Your task to perform on an android device: Clear the shopping cart on ebay.com. Search for "logitech g pro" on ebay.com, select the first entry, add it to the cart, then select checkout. Image 0: 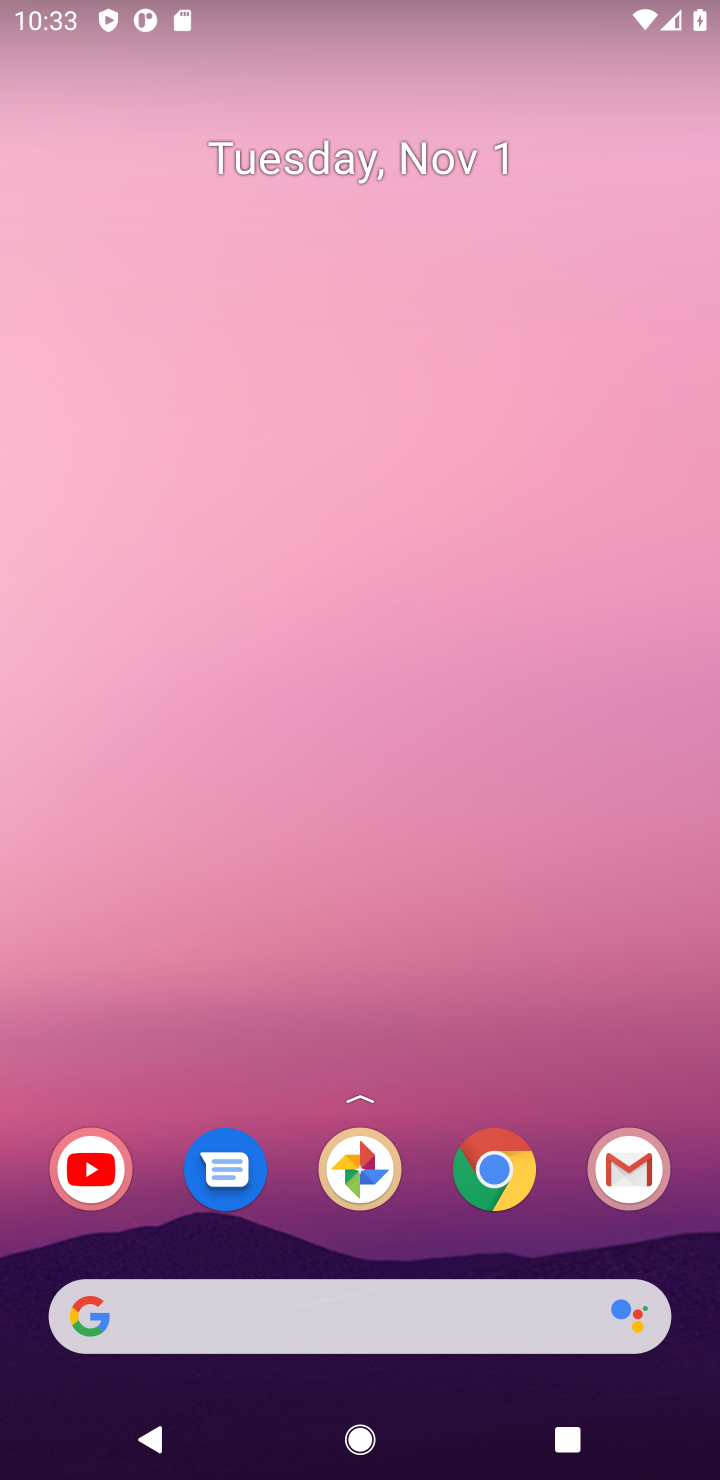
Step 0: click (518, 1165)
Your task to perform on an android device: Clear the shopping cart on ebay.com. Search for "logitech g pro" on ebay.com, select the first entry, add it to the cart, then select checkout. Image 1: 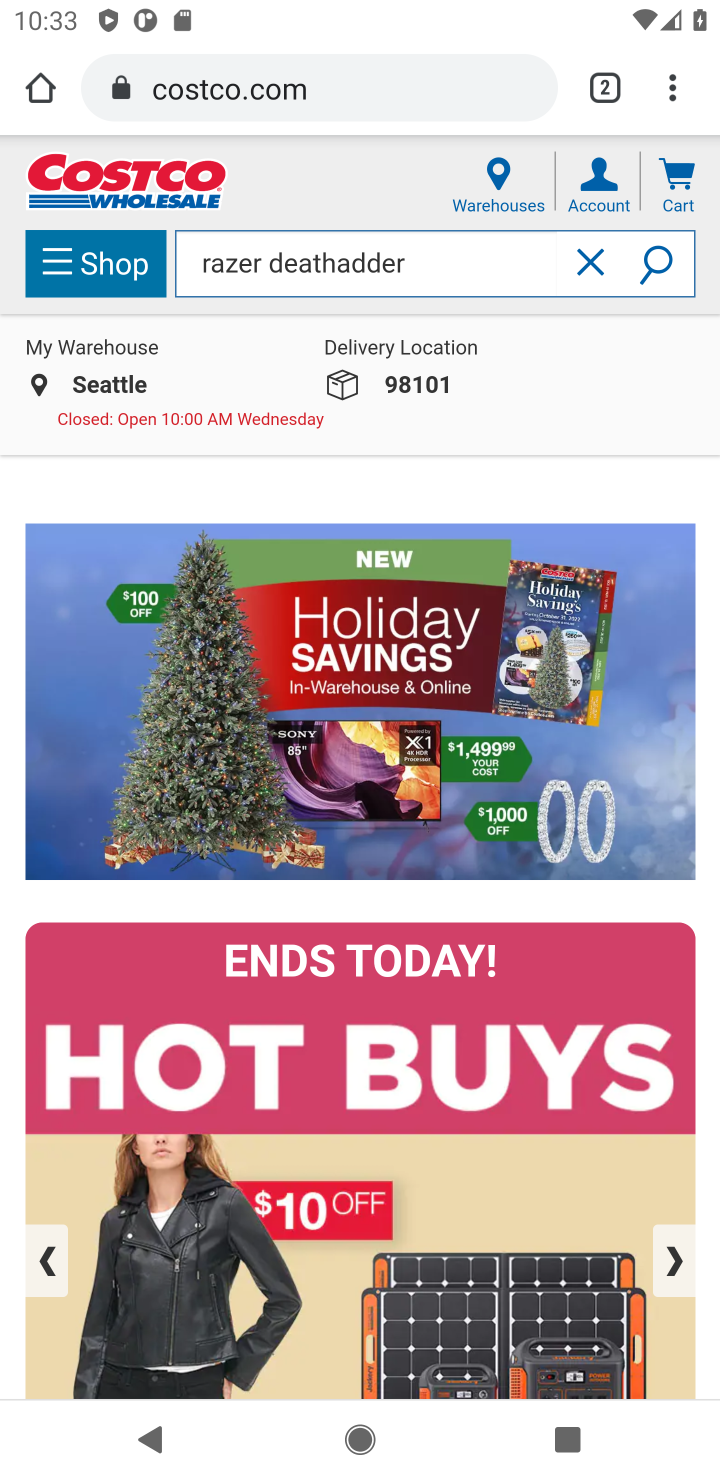
Step 1: click (256, 78)
Your task to perform on an android device: Clear the shopping cart on ebay.com. Search for "logitech g pro" on ebay.com, select the first entry, add it to the cart, then select checkout. Image 2: 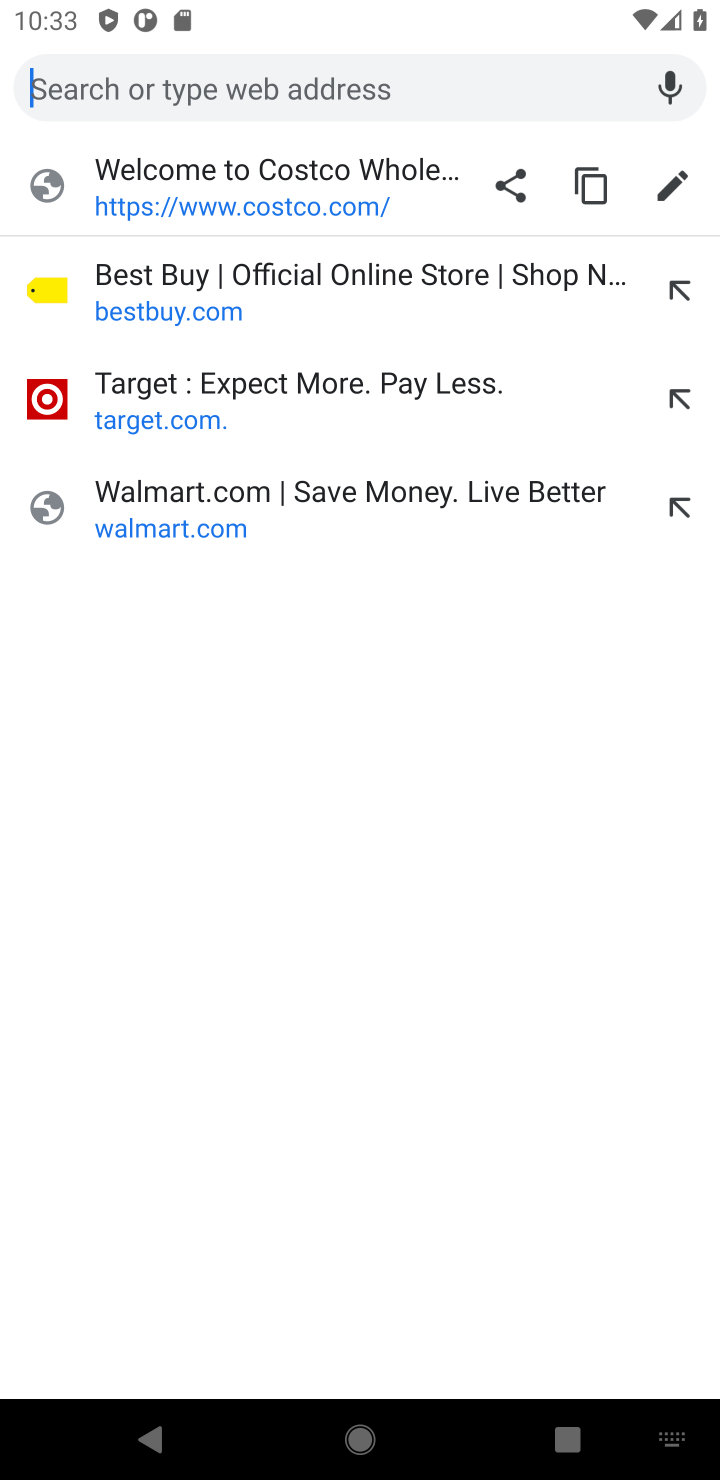
Step 2: type "ebay.com"
Your task to perform on an android device: Clear the shopping cart on ebay.com. Search for "logitech g pro" on ebay.com, select the first entry, add it to the cart, then select checkout. Image 3: 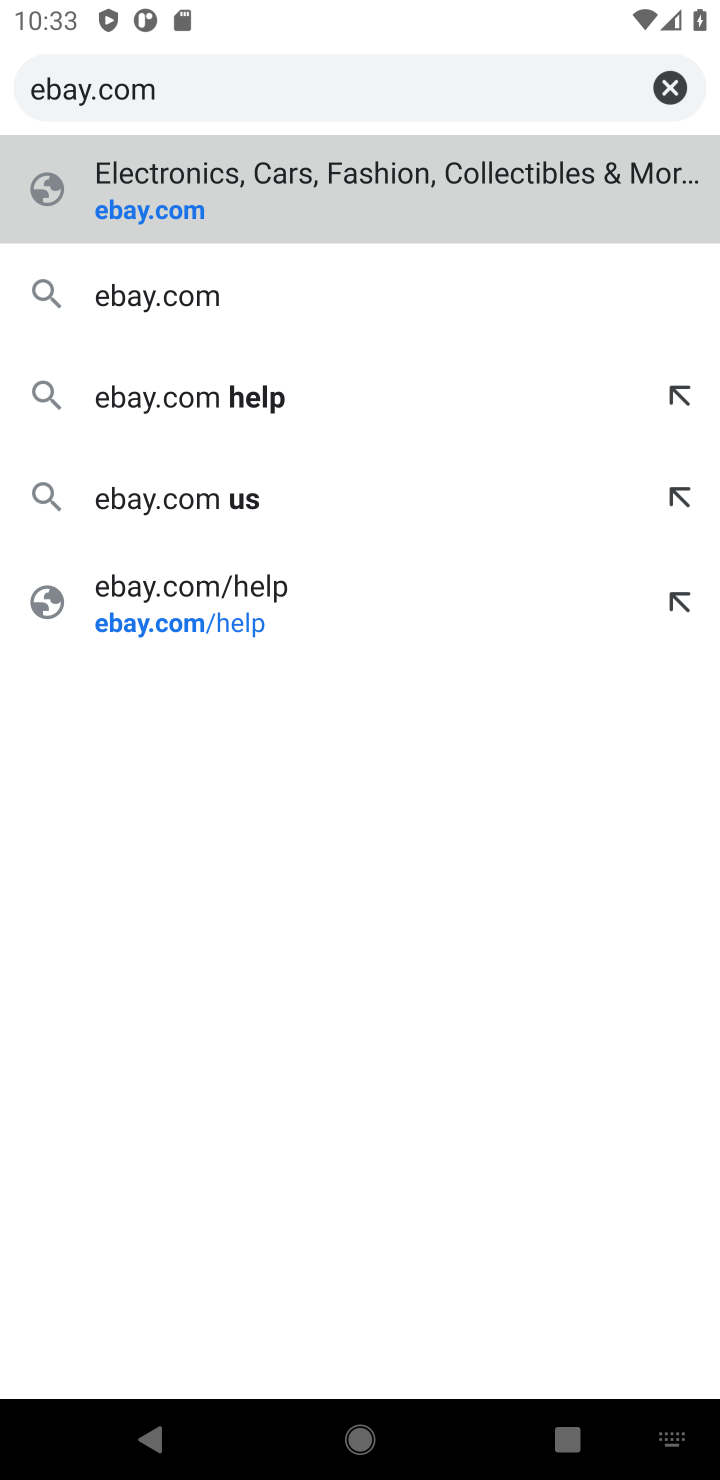
Step 3: click (238, 294)
Your task to perform on an android device: Clear the shopping cart on ebay.com. Search for "logitech g pro" on ebay.com, select the first entry, add it to the cart, then select checkout. Image 4: 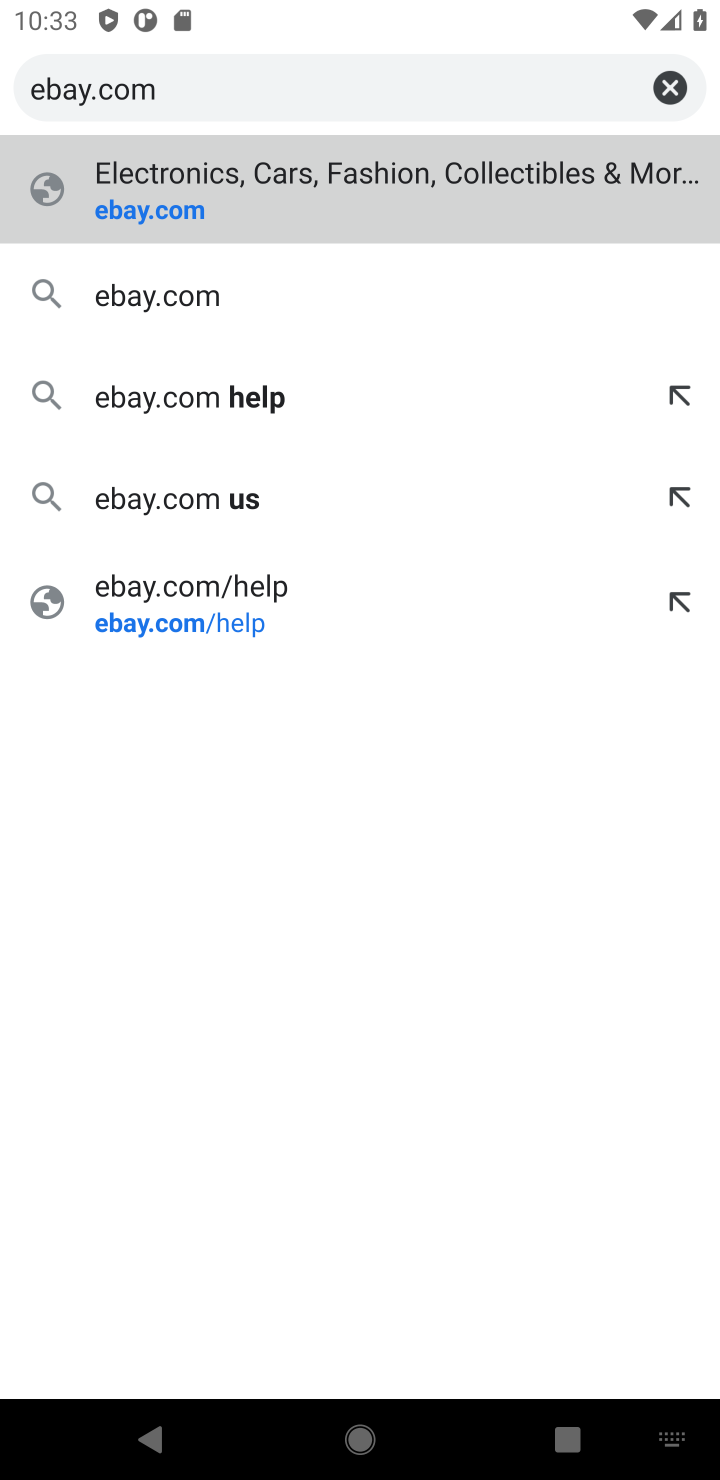
Step 4: click (125, 286)
Your task to perform on an android device: Clear the shopping cart on ebay.com. Search for "logitech g pro" on ebay.com, select the first entry, add it to the cart, then select checkout. Image 5: 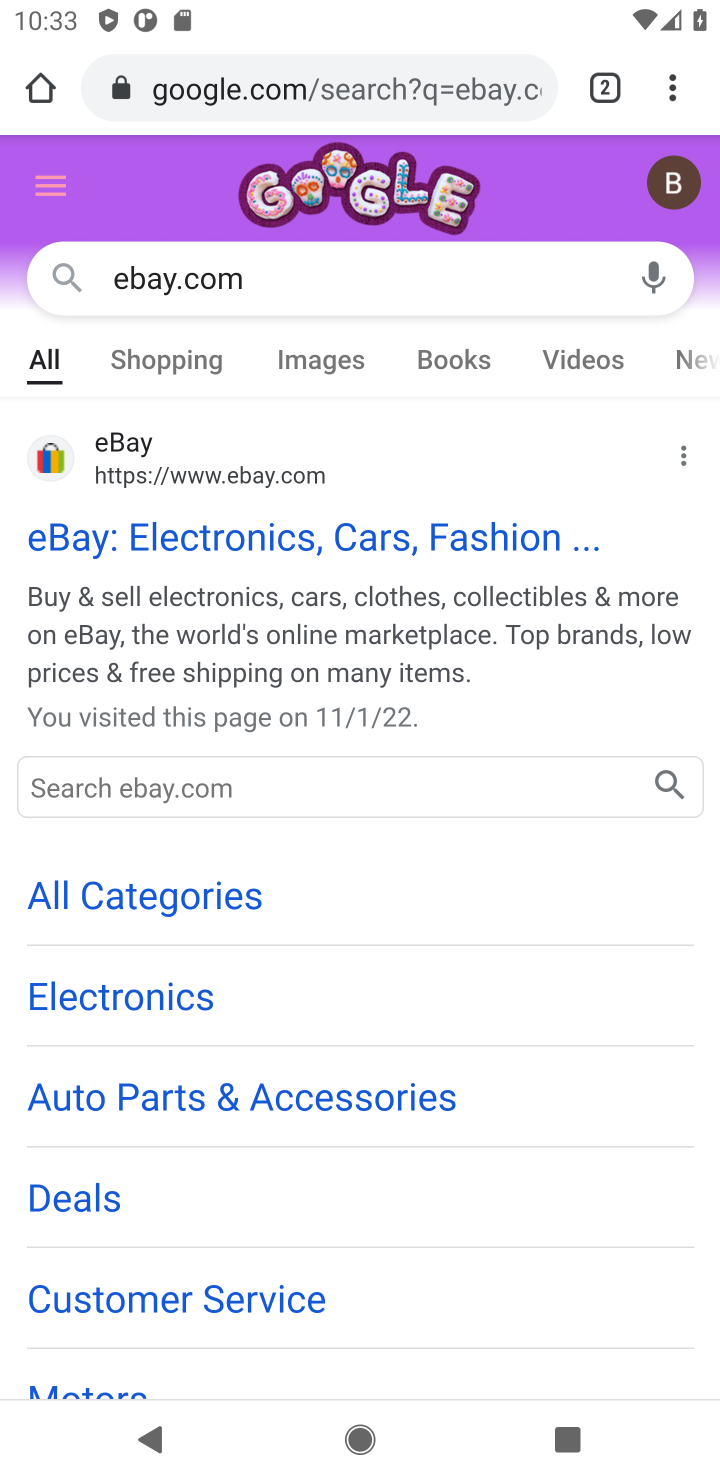
Step 5: click (189, 463)
Your task to perform on an android device: Clear the shopping cart on ebay.com. Search for "logitech g pro" on ebay.com, select the first entry, add it to the cart, then select checkout. Image 6: 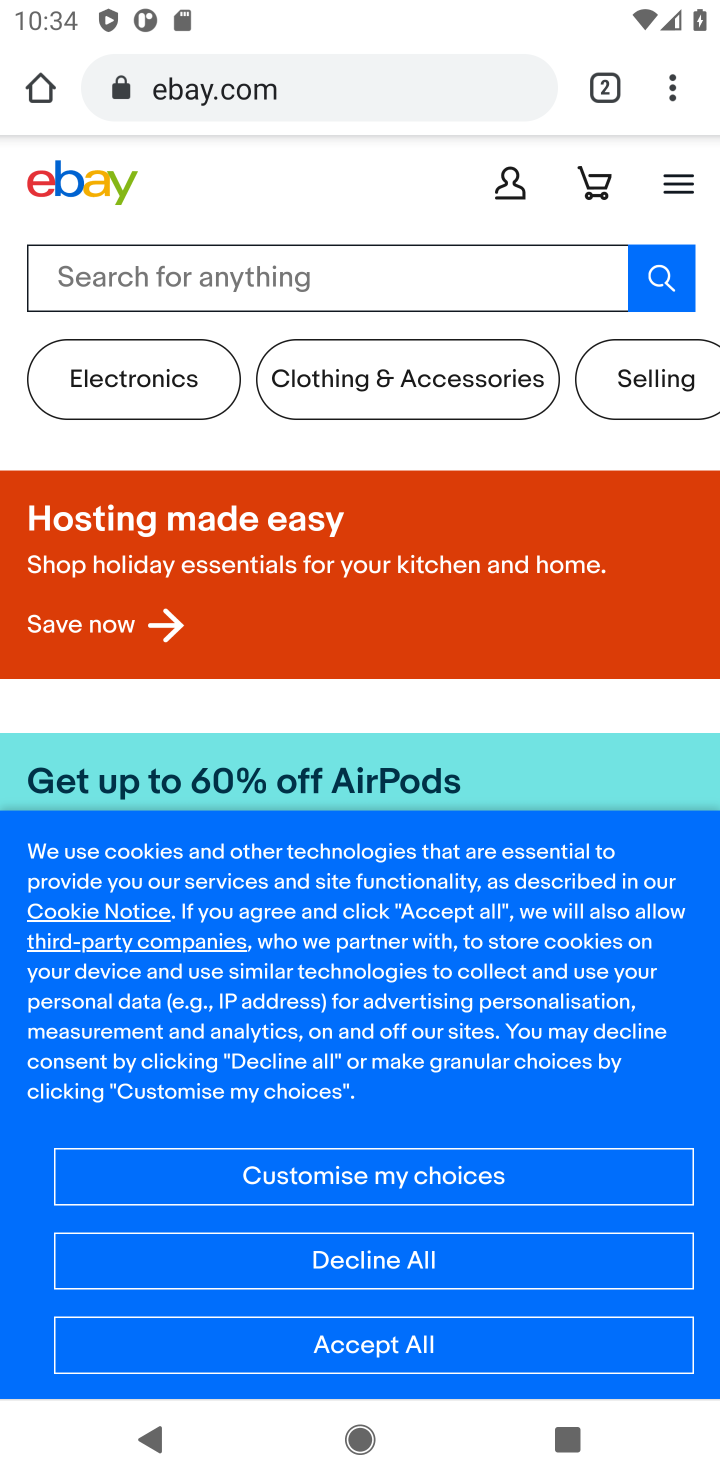
Step 6: click (602, 189)
Your task to perform on an android device: Clear the shopping cart on ebay.com. Search for "logitech g pro" on ebay.com, select the first entry, add it to the cart, then select checkout. Image 7: 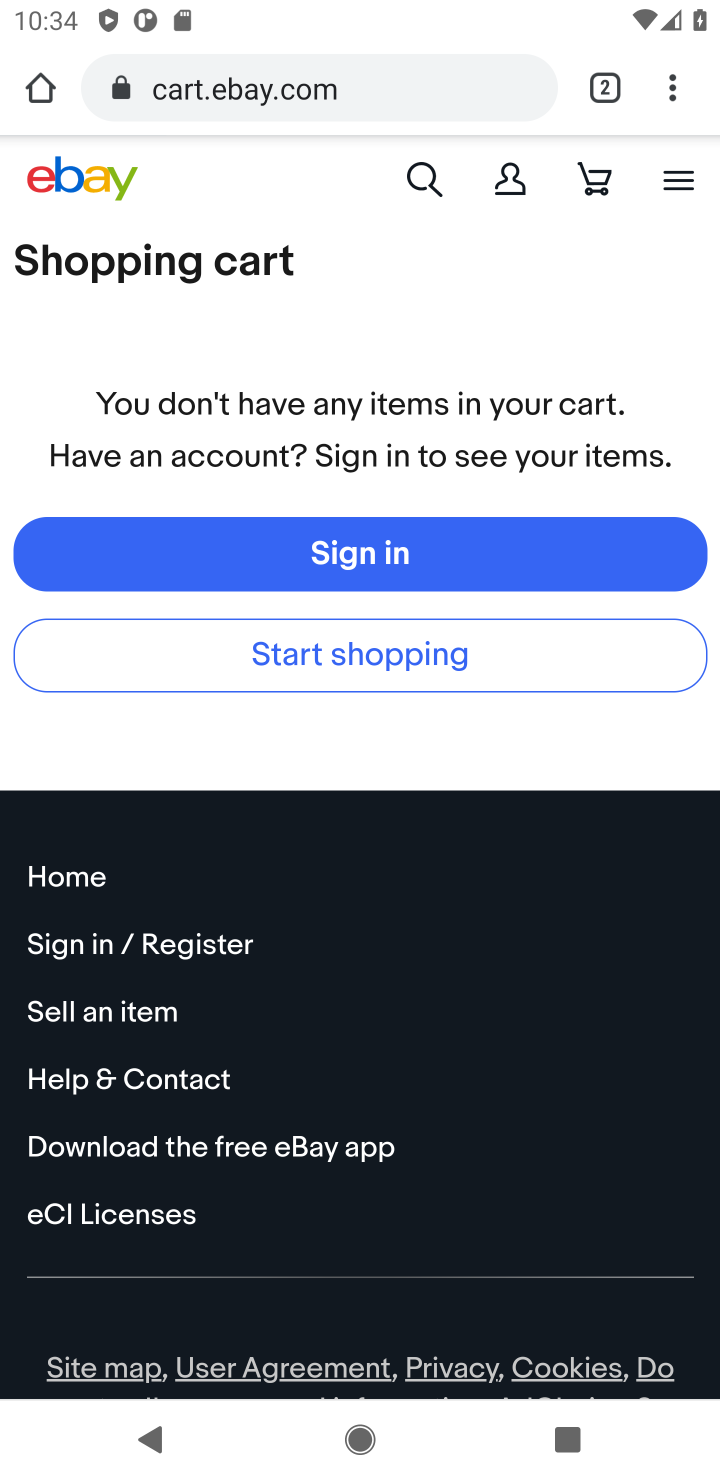
Step 7: click (418, 168)
Your task to perform on an android device: Clear the shopping cart on ebay.com. Search for "logitech g pro" on ebay.com, select the first entry, add it to the cart, then select checkout. Image 8: 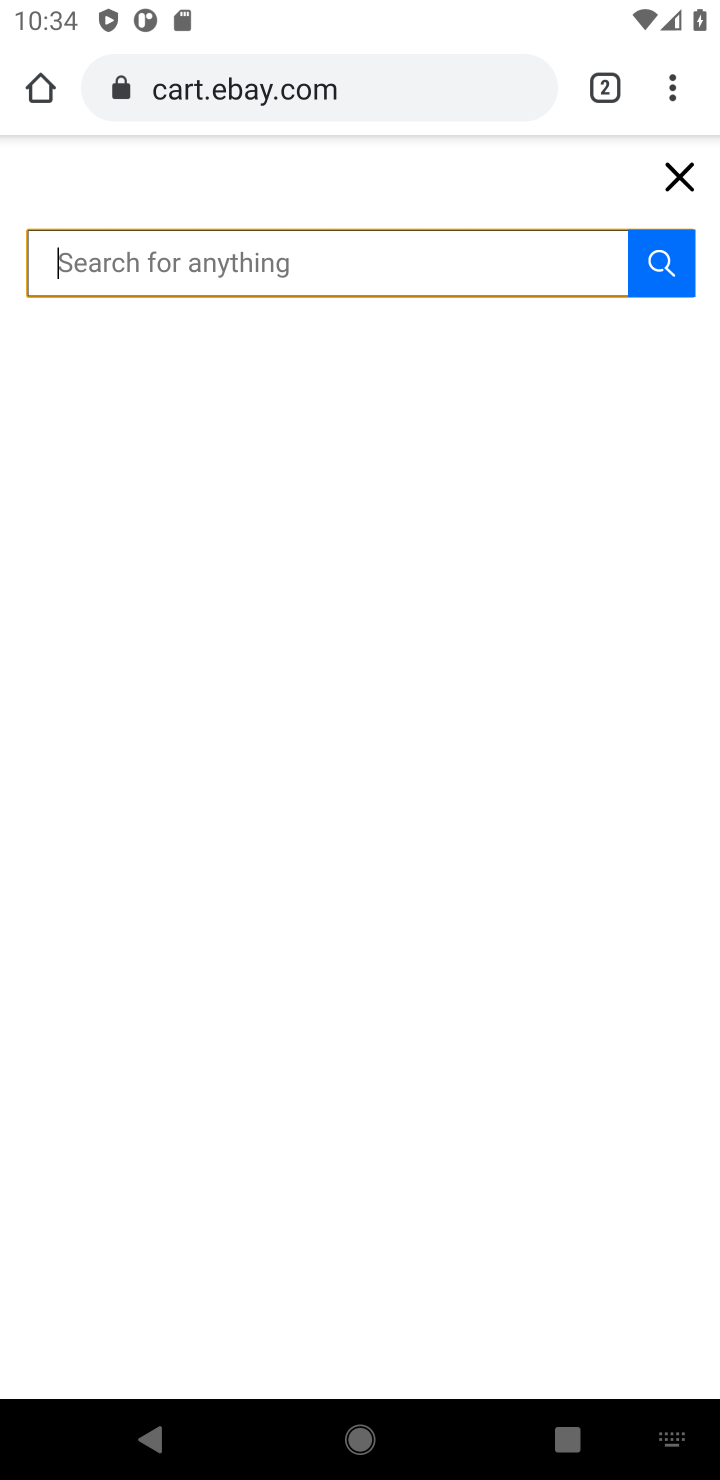
Step 8: type "logitech g pro"
Your task to perform on an android device: Clear the shopping cart on ebay.com. Search for "logitech g pro" on ebay.com, select the first entry, add it to the cart, then select checkout. Image 9: 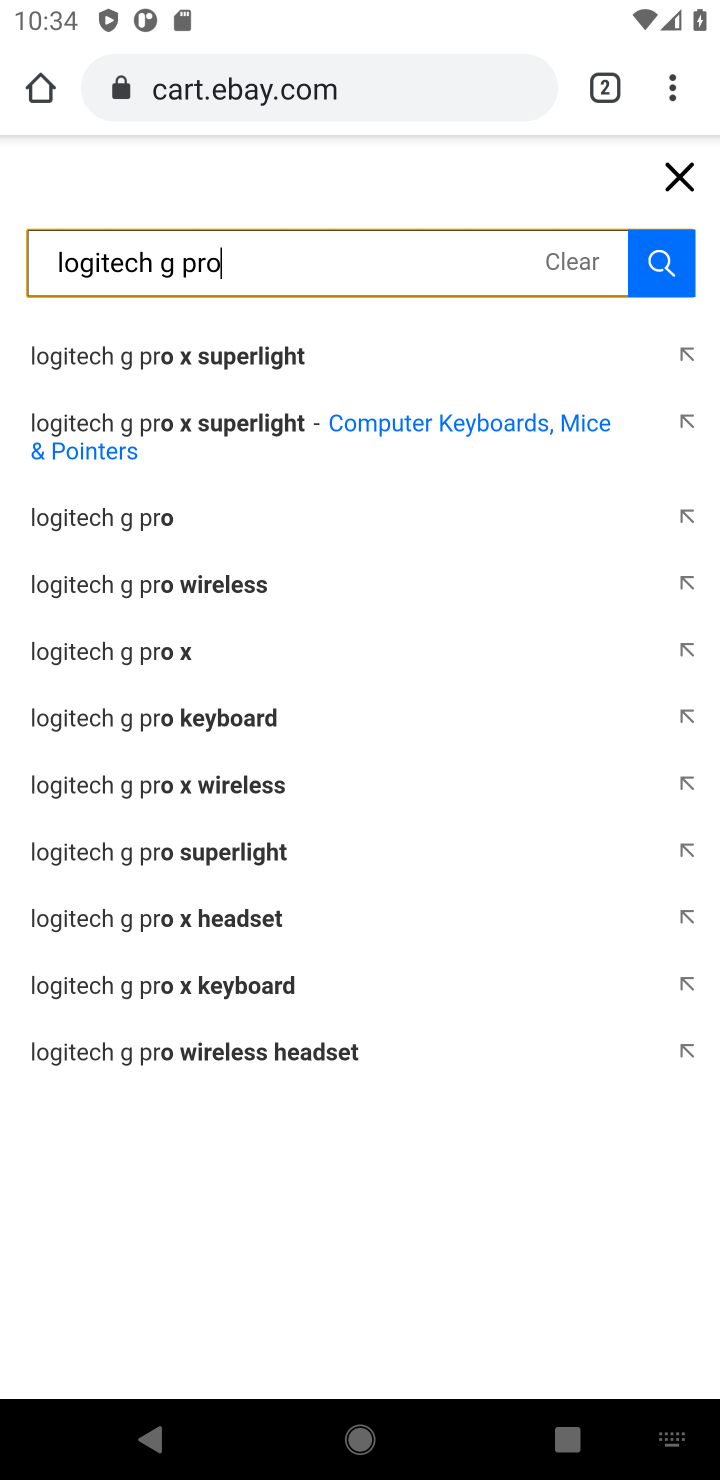
Step 9: click (166, 512)
Your task to perform on an android device: Clear the shopping cart on ebay.com. Search for "logitech g pro" on ebay.com, select the first entry, add it to the cart, then select checkout. Image 10: 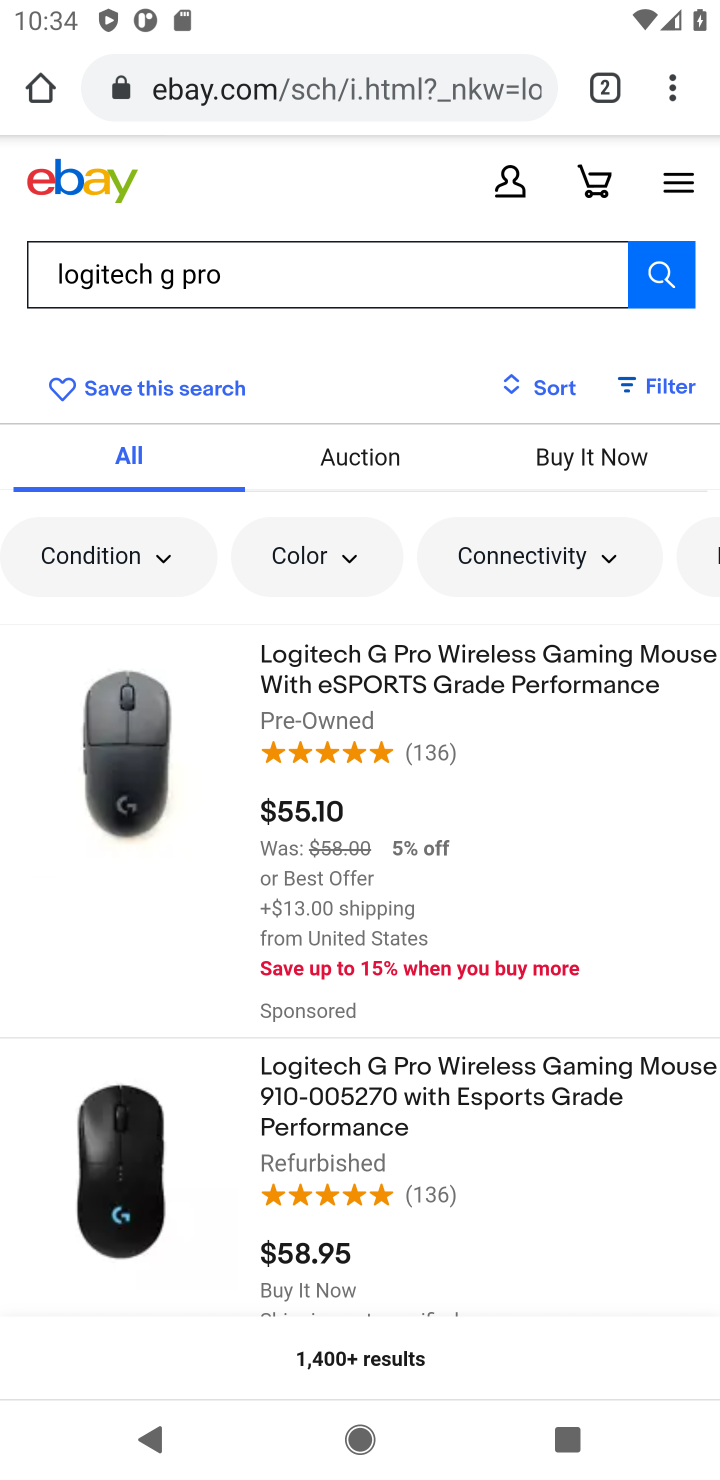
Step 10: click (92, 809)
Your task to perform on an android device: Clear the shopping cart on ebay.com. Search for "logitech g pro" on ebay.com, select the first entry, add it to the cart, then select checkout. Image 11: 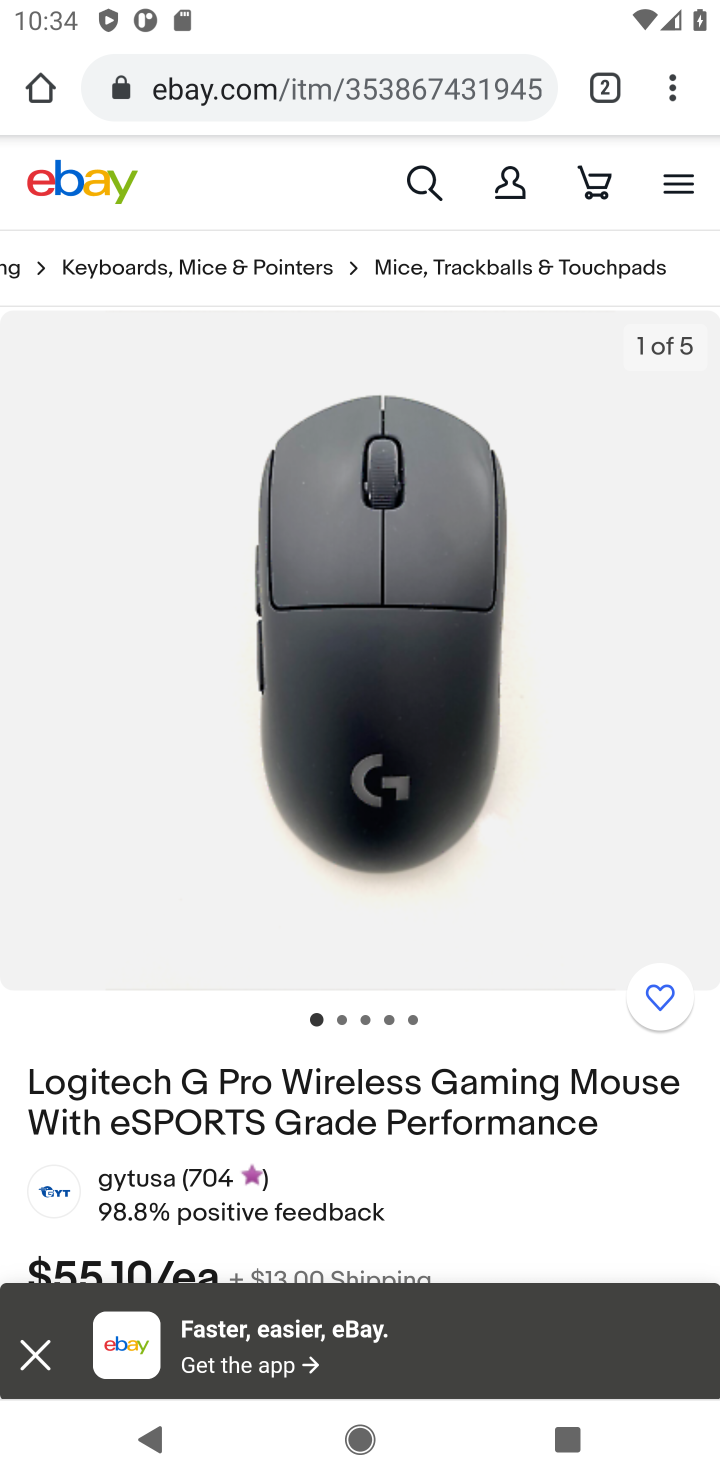
Step 11: drag from (569, 1177) to (494, 383)
Your task to perform on an android device: Clear the shopping cart on ebay.com. Search for "logitech g pro" on ebay.com, select the first entry, add it to the cart, then select checkout. Image 12: 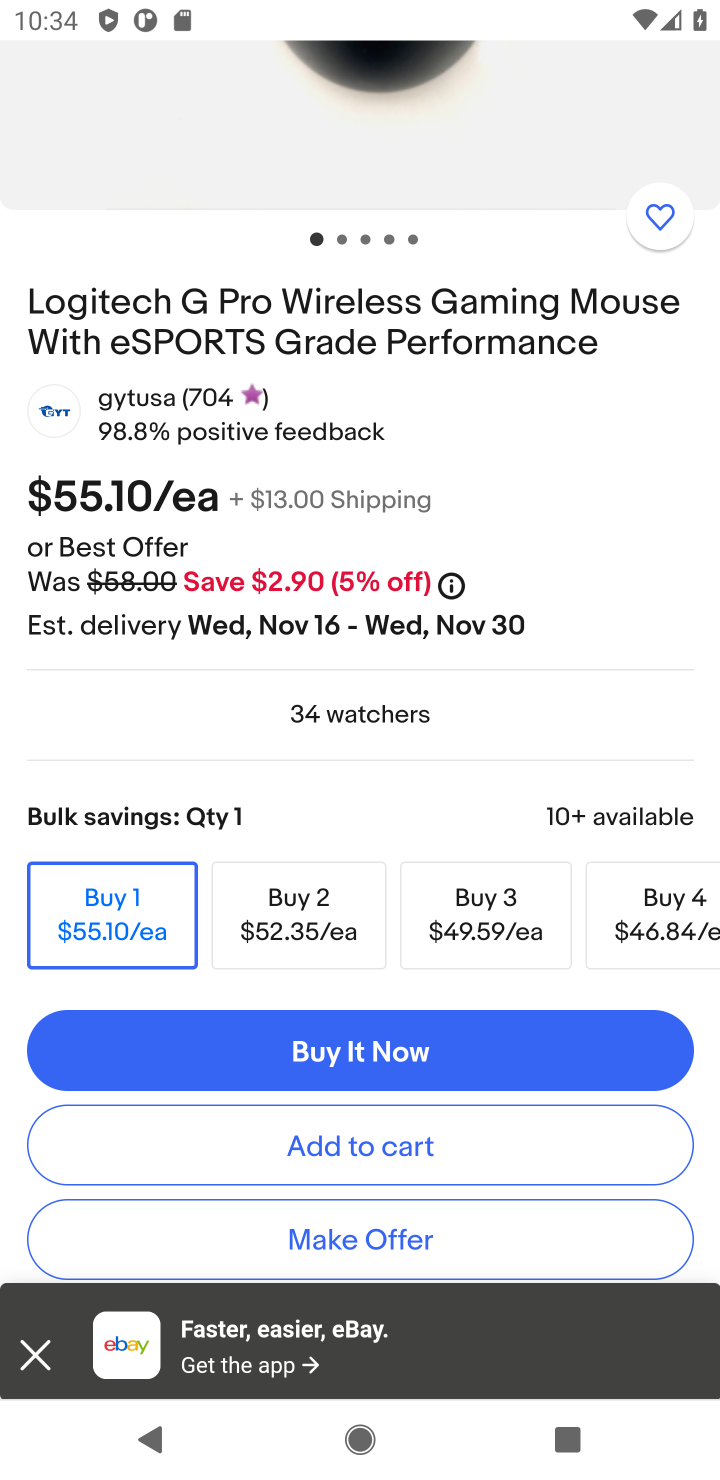
Step 12: click (373, 1135)
Your task to perform on an android device: Clear the shopping cart on ebay.com. Search for "logitech g pro" on ebay.com, select the first entry, add it to the cart, then select checkout. Image 13: 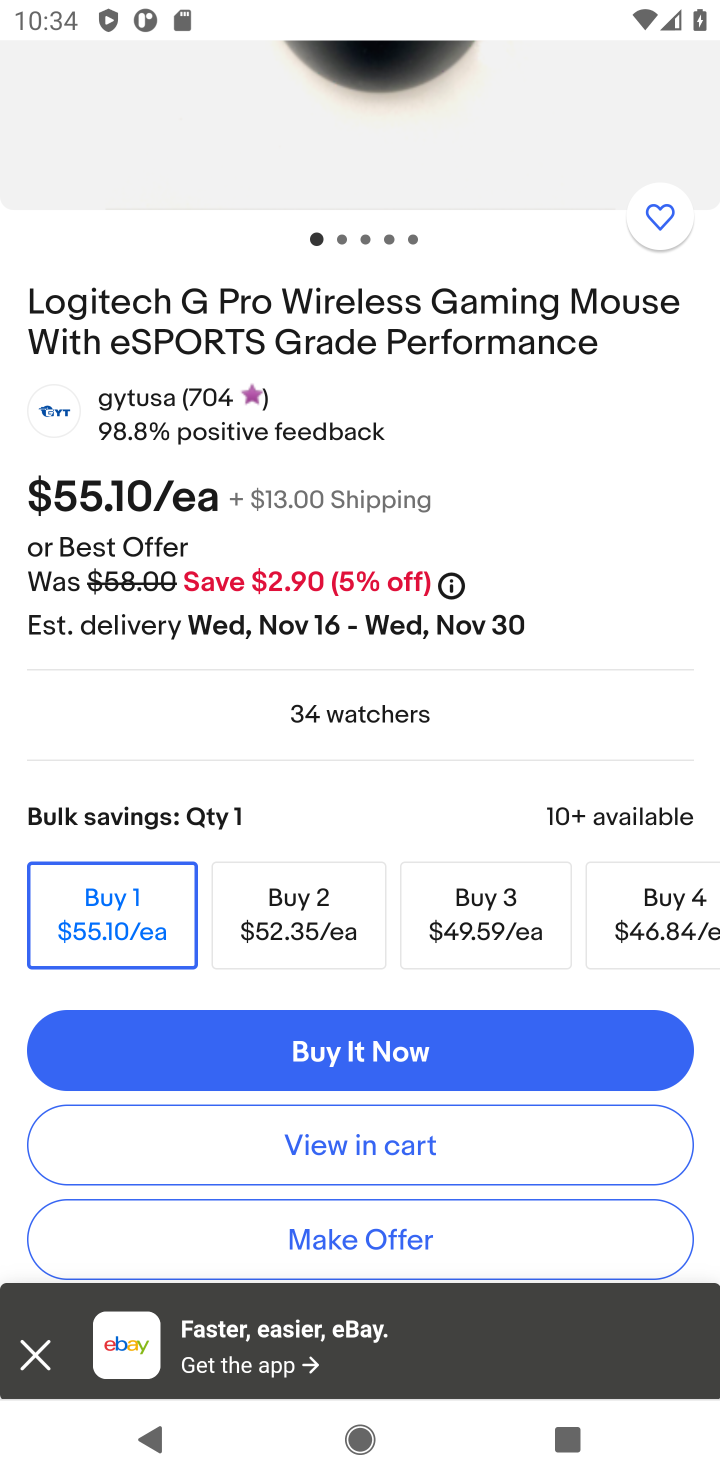
Step 13: click (374, 1149)
Your task to perform on an android device: Clear the shopping cart on ebay.com. Search for "logitech g pro" on ebay.com, select the first entry, add it to the cart, then select checkout. Image 14: 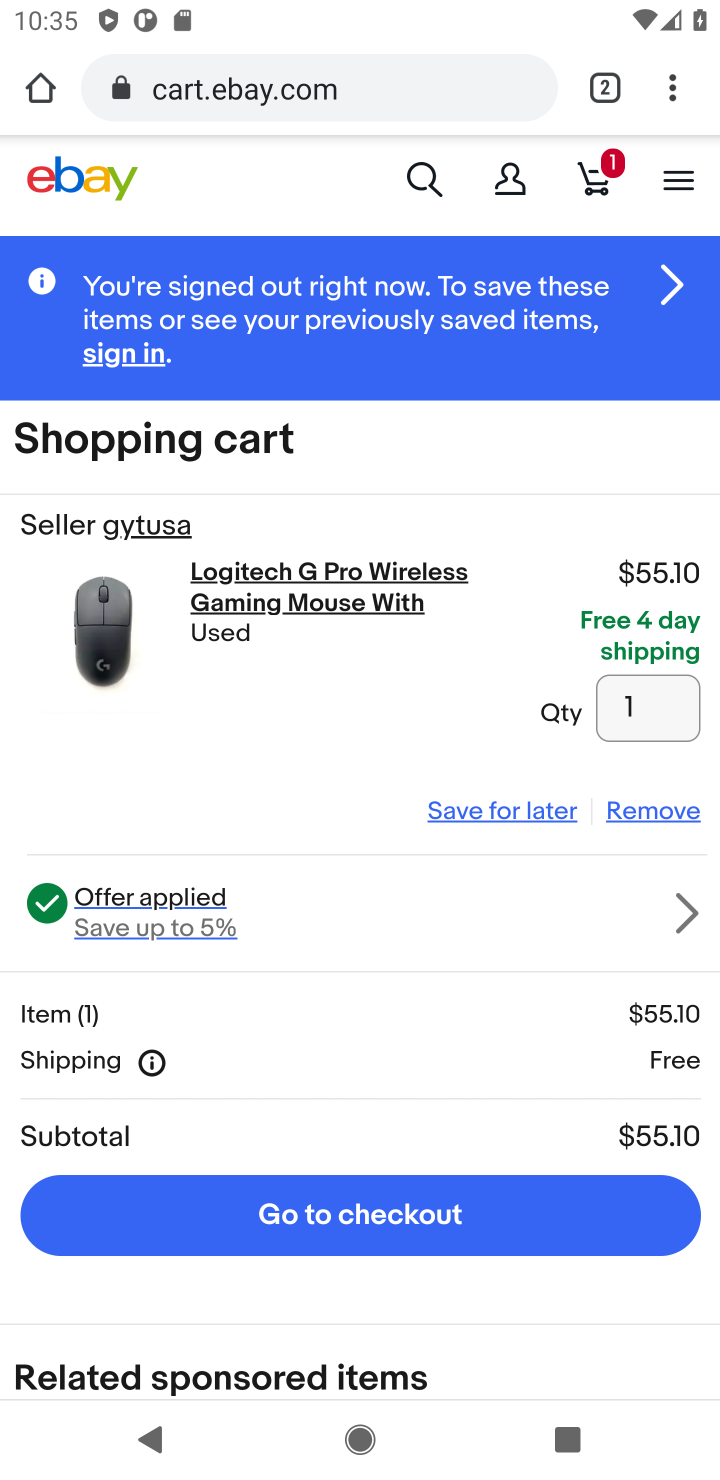
Step 14: click (364, 1229)
Your task to perform on an android device: Clear the shopping cart on ebay.com. Search for "logitech g pro" on ebay.com, select the first entry, add it to the cart, then select checkout. Image 15: 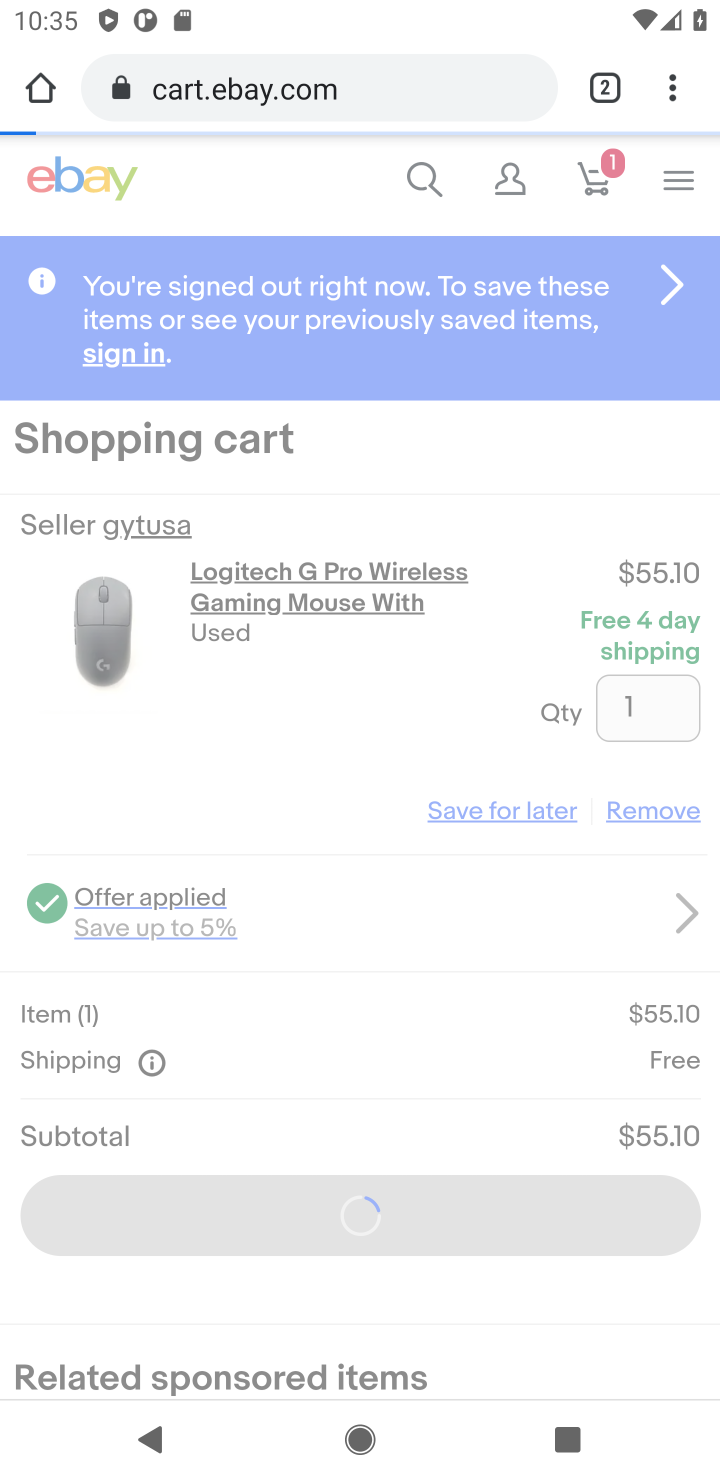
Step 15: task complete